Your task to perform on an android device: Open Maps and search for coffee Image 0: 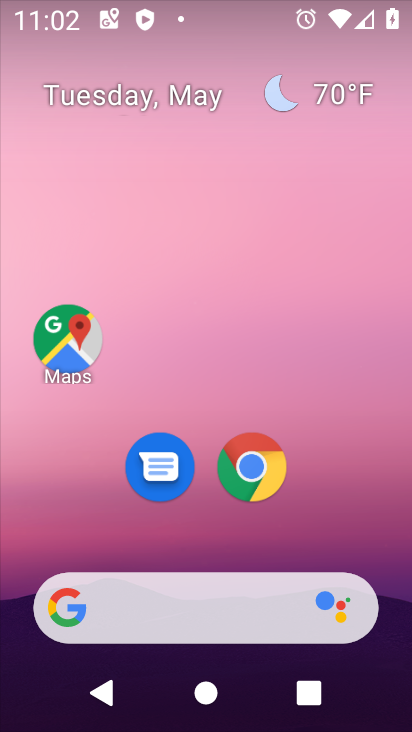
Step 0: click (56, 341)
Your task to perform on an android device: Open Maps and search for coffee Image 1: 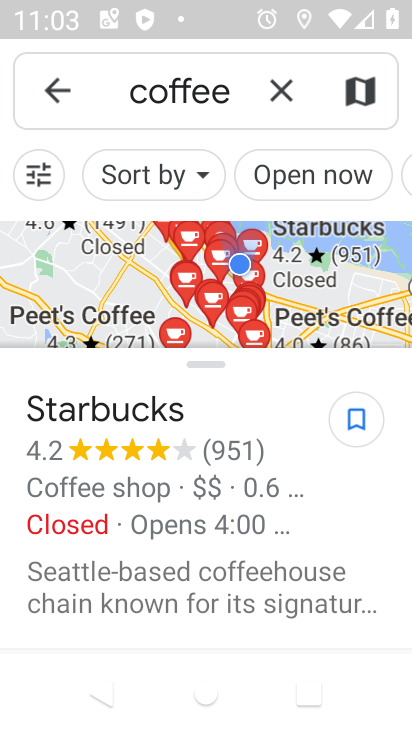
Step 1: task complete